Your task to perform on an android device: Search for Italian restaurants on Maps Image 0: 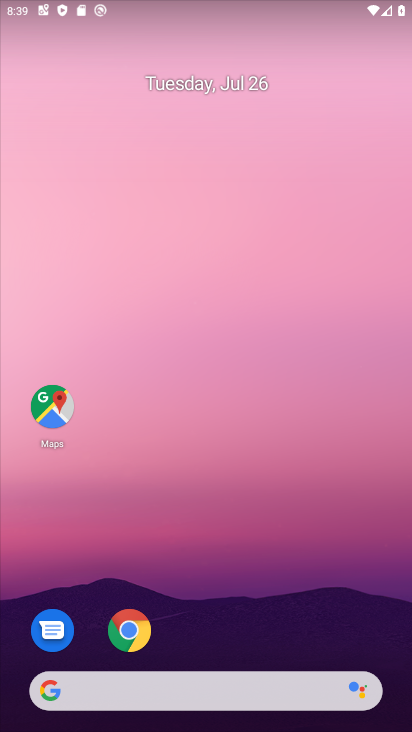
Step 0: drag from (277, 656) to (198, 114)
Your task to perform on an android device: Search for Italian restaurants on Maps Image 1: 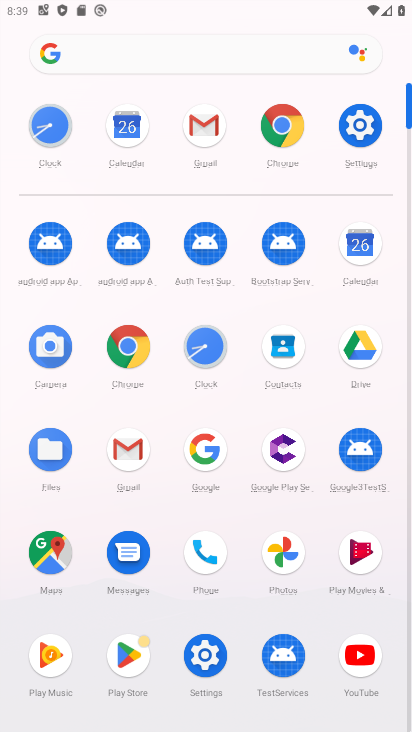
Step 1: click (48, 565)
Your task to perform on an android device: Search for Italian restaurants on Maps Image 2: 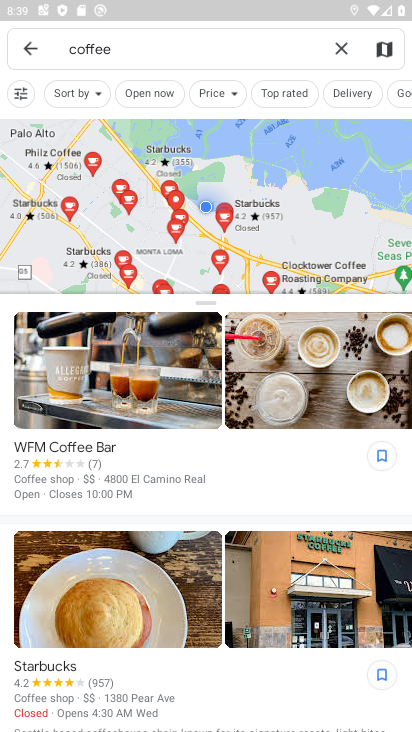
Step 2: click (338, 42)
Your task to perform on an android device: Search for Italian restaurants on Maps Image 3: 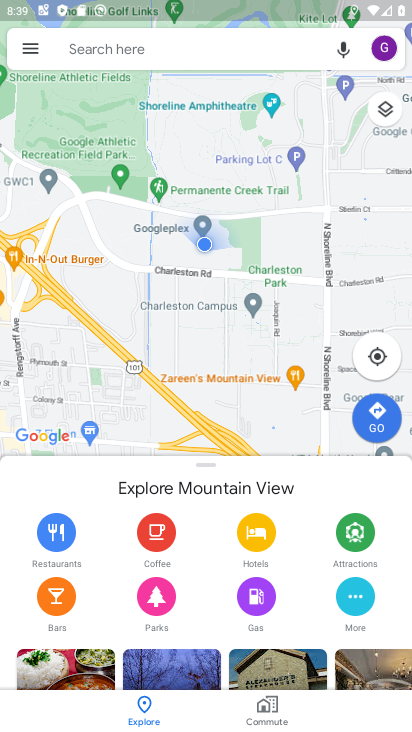
Step 3: type "italian"
Your task to perform on an android device: Search for Italian restaurants on Maps Image 4: 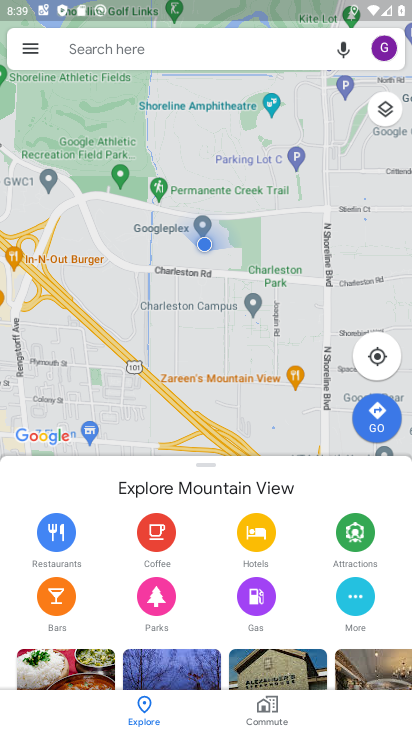
Step 4: task complete